Your task to perform on an android device: Search for dining room chairs on Crate & Barrel Image 0: 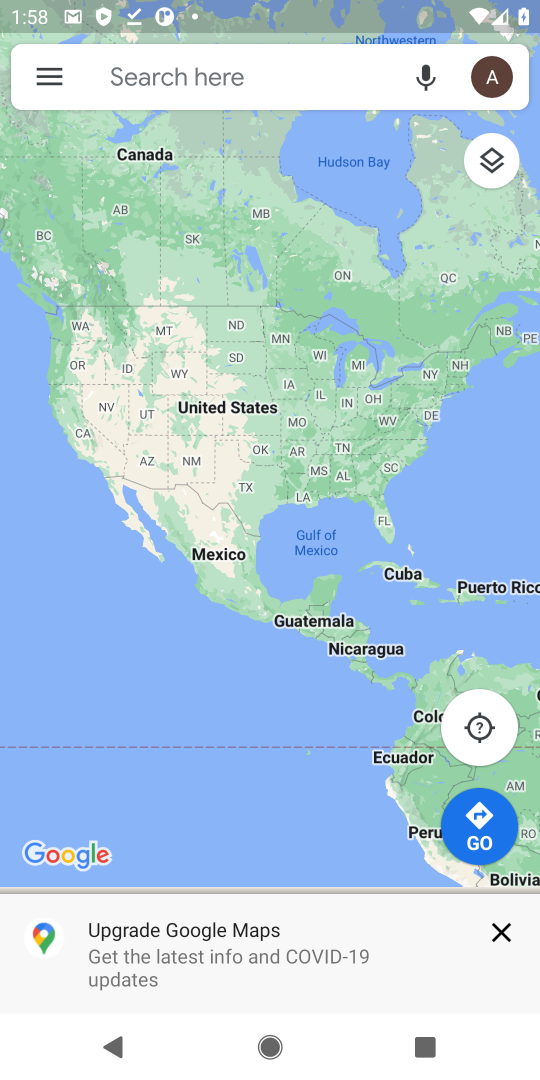
Step 0: press home button
Your task to perform on an android device: Search for dining room chairs on Crate & Barrel Image 1: 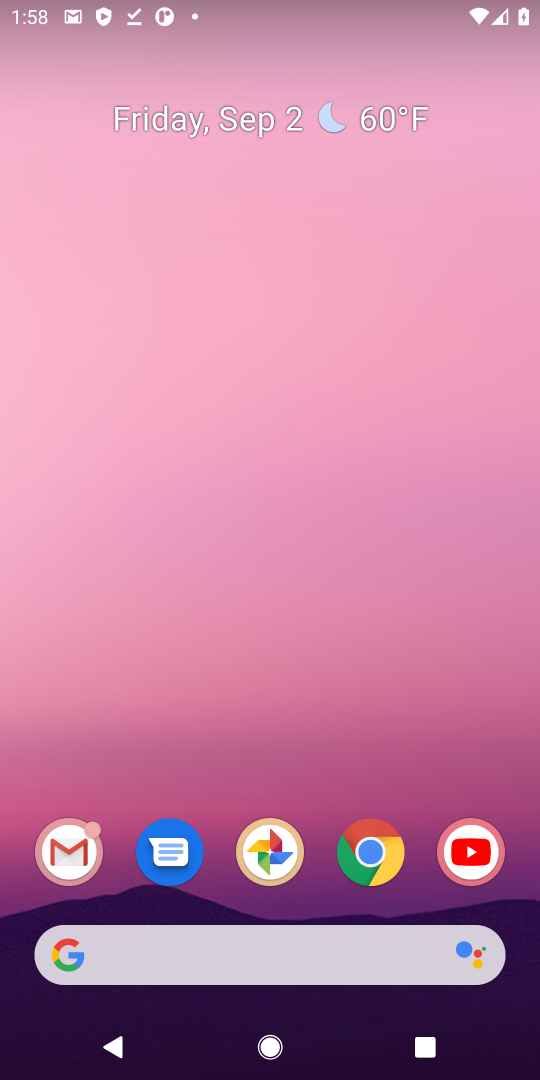
Step 1: drag from (458, 2) to (535, 9)
Your task to perform on an android device: Search for dining room chairs on Crate & Barrel Image 2: 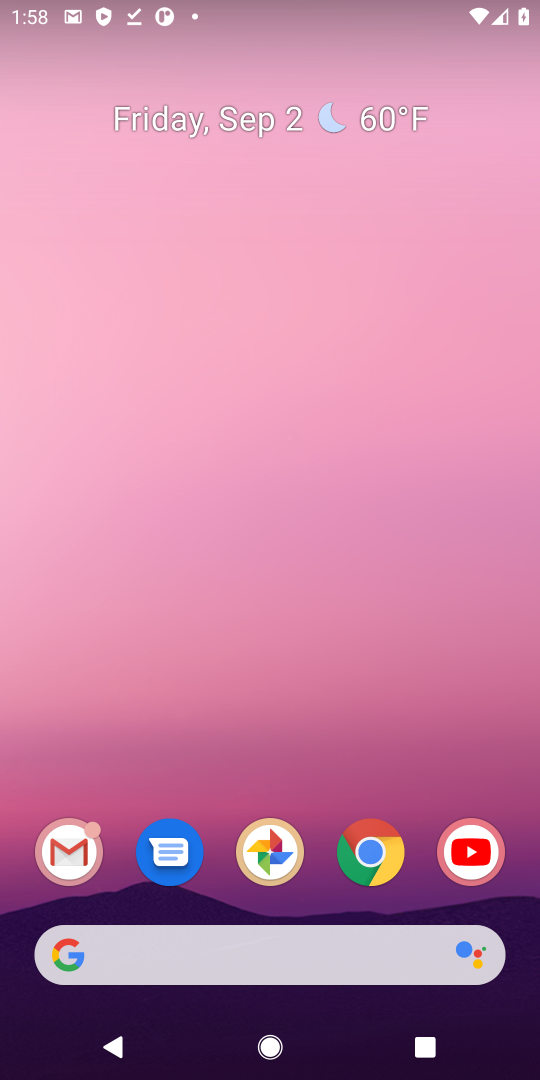
Step 2: drag from (361, 809) to (246, 209)
Your task to perform on an android device: Search for dining room chairs on Crate & Barrel Image 3: 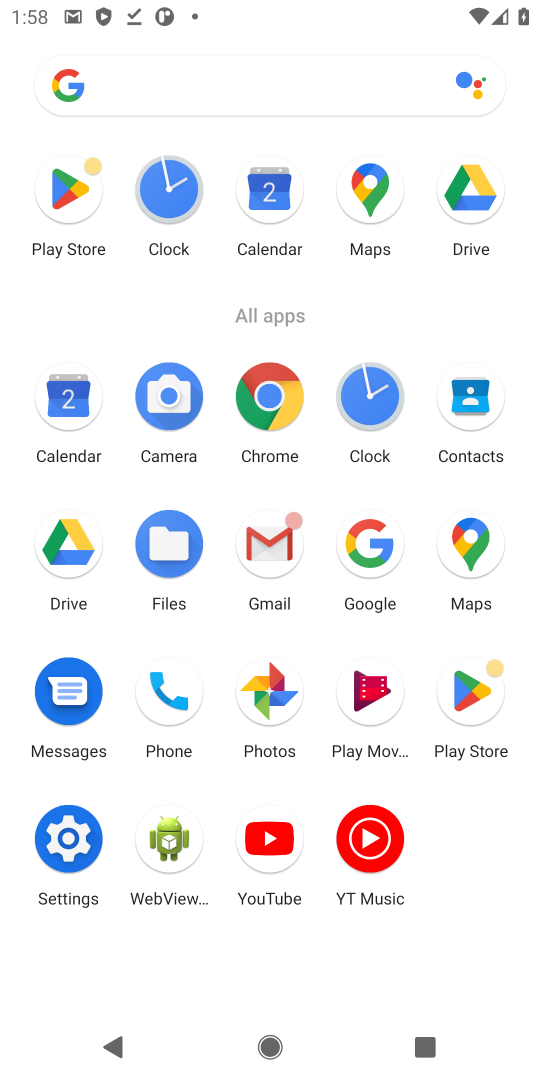
Step 3: click (267, 396)
Your task to perform on an android device: Search for dining room chairs on Crate & Barrel Image 4: 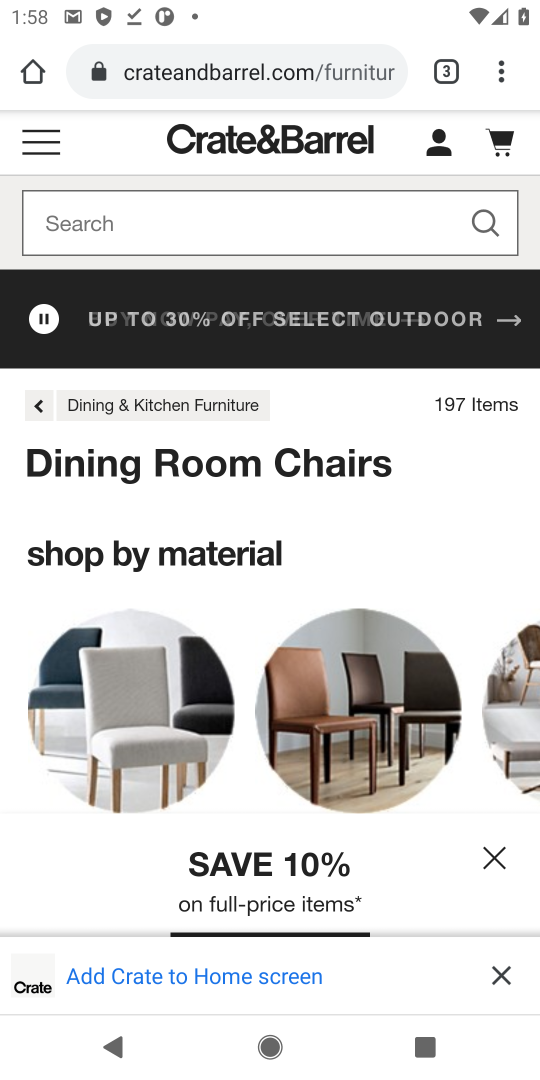
Step 4: click (297, 79)
Your task to perform on an android device: Search for dining room chairs on Crate & Barrel Image 5: 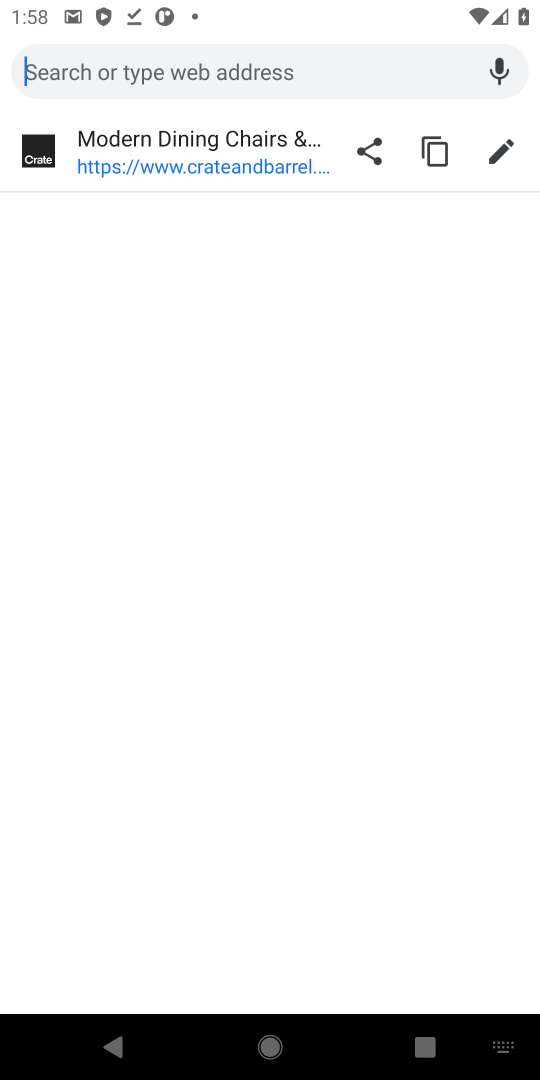
Step 5: type "dining room chairs on Crate & Barrel"
Your task to perform on an android device: Search for dining room chairs on Crate & Barrel Image 6: 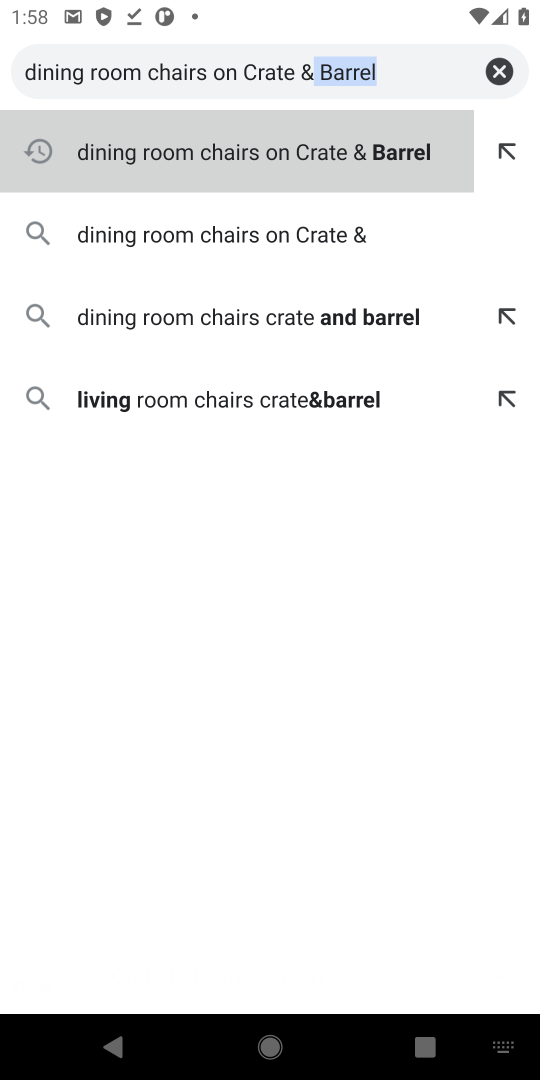
Step 6: press enter
Your task to perform on an android device: Search for dining room chairs on Crate & Barrel Image 7: 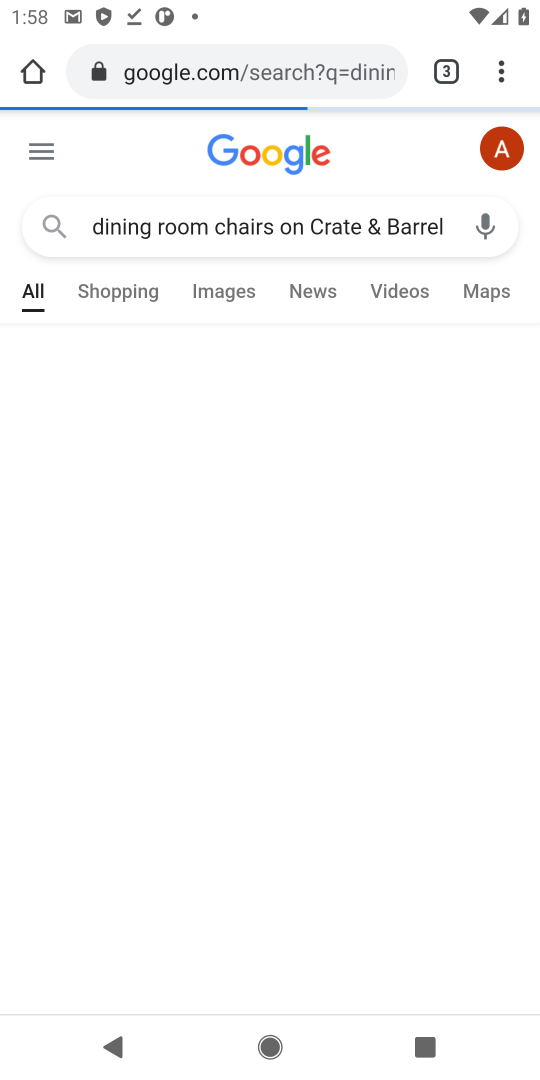
Step 7: press enter
Your task to perform on an android device: Search for dining room chairs on Crate & Barrel Image 8: 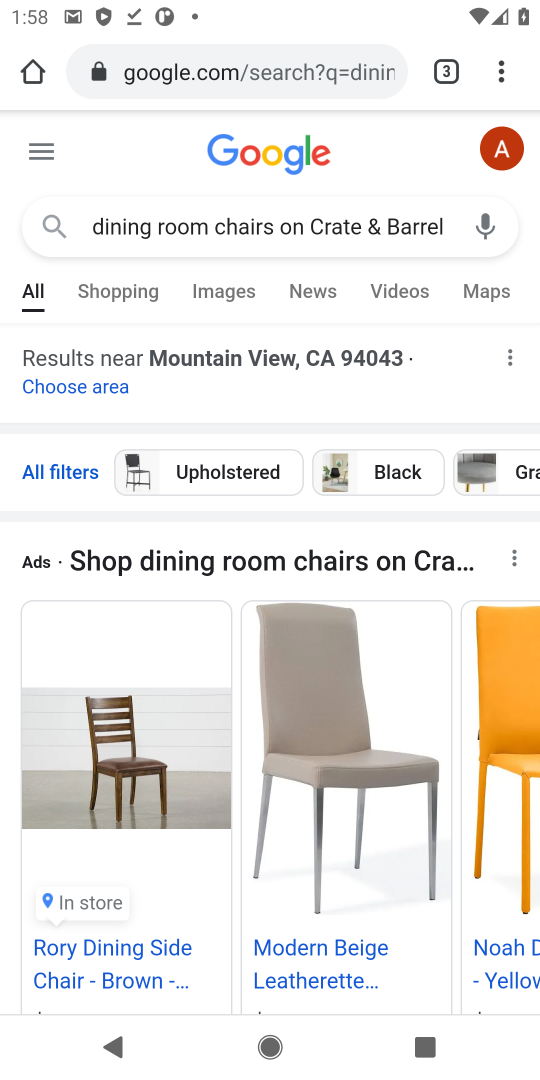
Step 8: click (288, 226)
Your task to perform on an android device: Search for dining room chairs on Crate & Barrel Image 9: 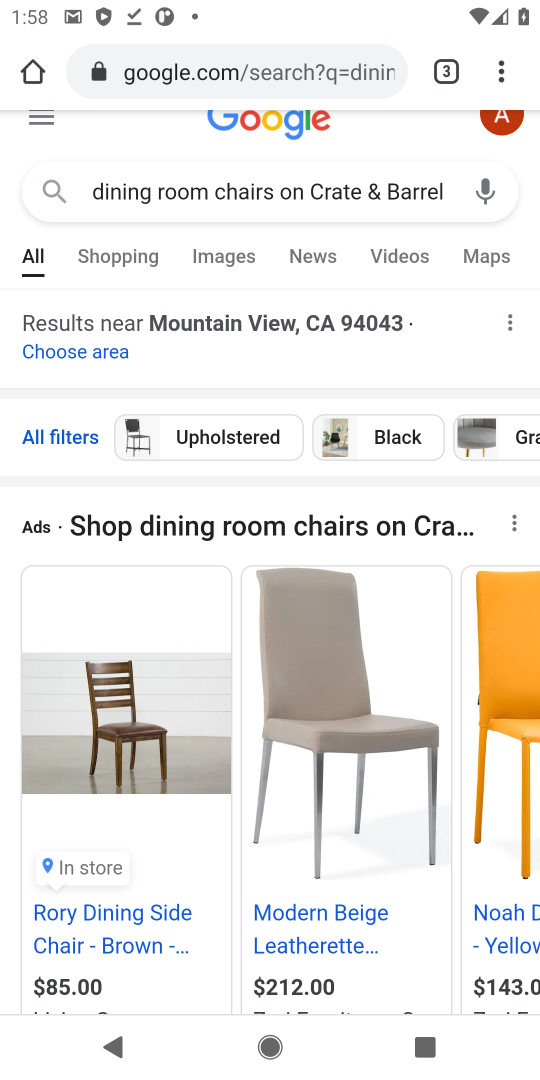
Step 9: drag from (291, 914) to (348, 231)
Your task to perform on an android device: Search for dining room chairs on Crate & Barrel Image 10: 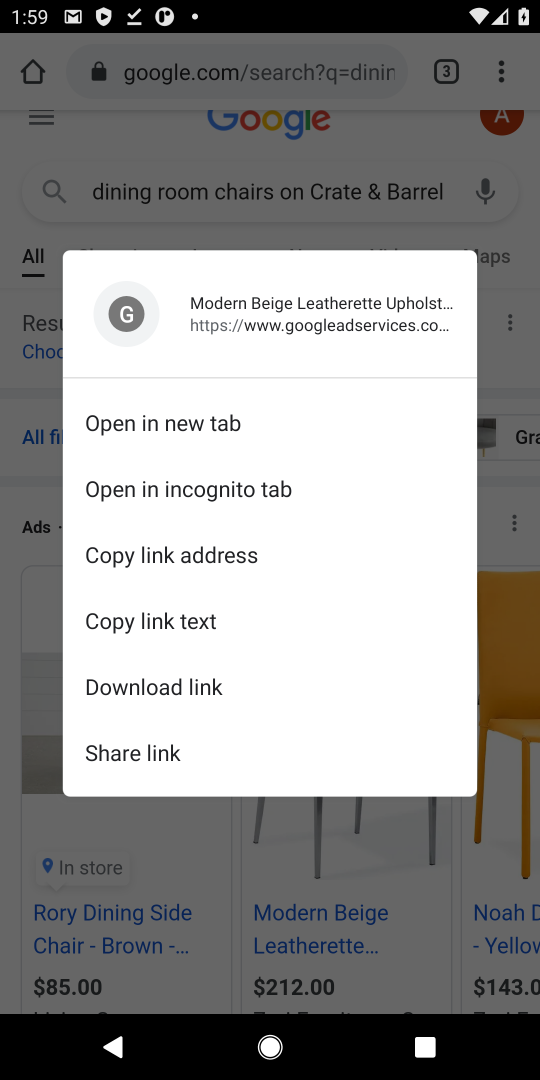
Step 10: click (299, 160)
Your task to perform on an android device: Search for dining room chairs on Crate & Barrel Image 11: 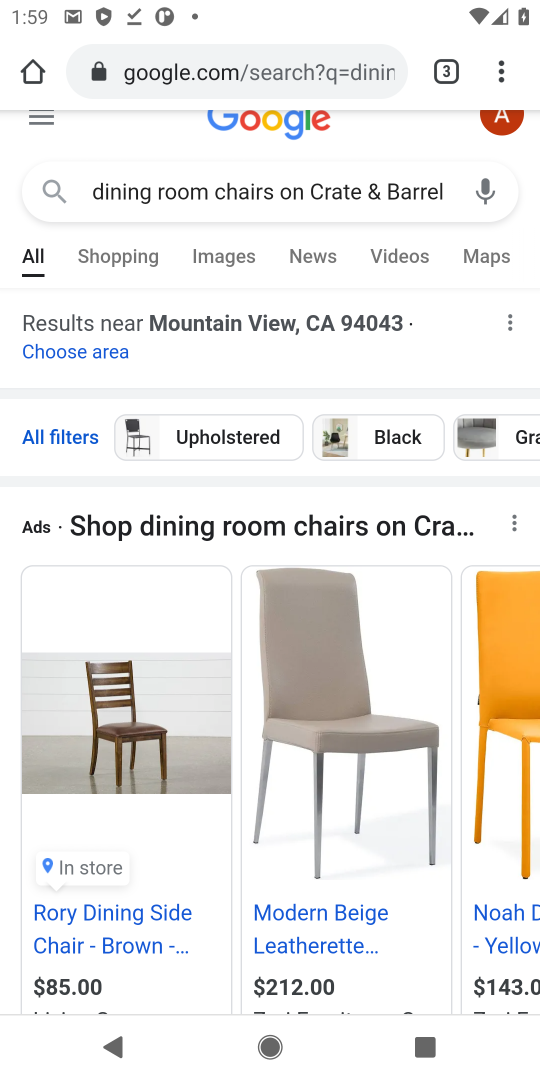
Step 11: drag from (330, 623) to (340, 70)
Your task to perform on an android device: Search for dining room chairs on Crate & Barrel Image 12: 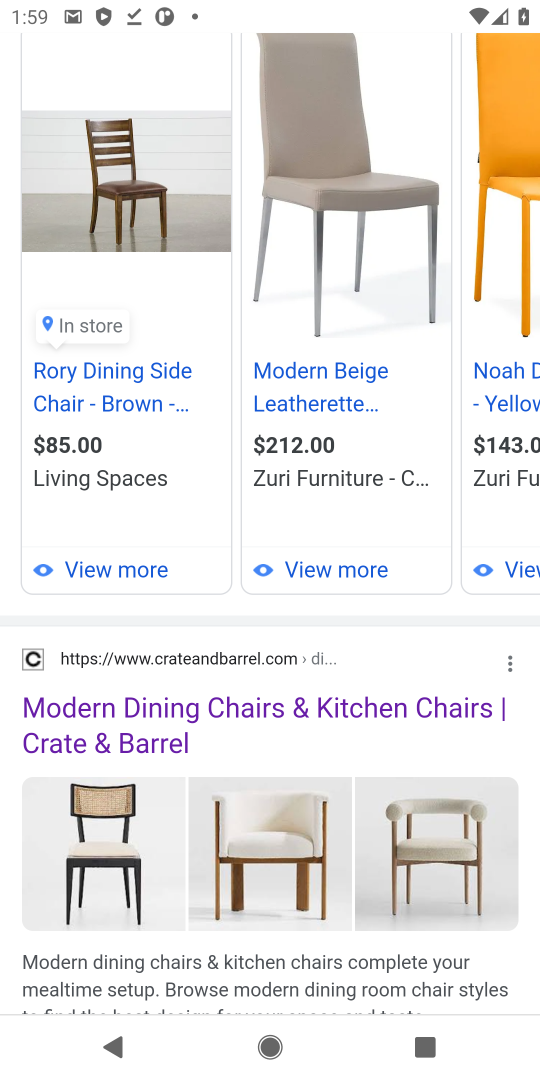
Step 12: click (176, 706)
Your task to perform on an android device: Search for dining room chairs on Crate & Barrel Image 13: 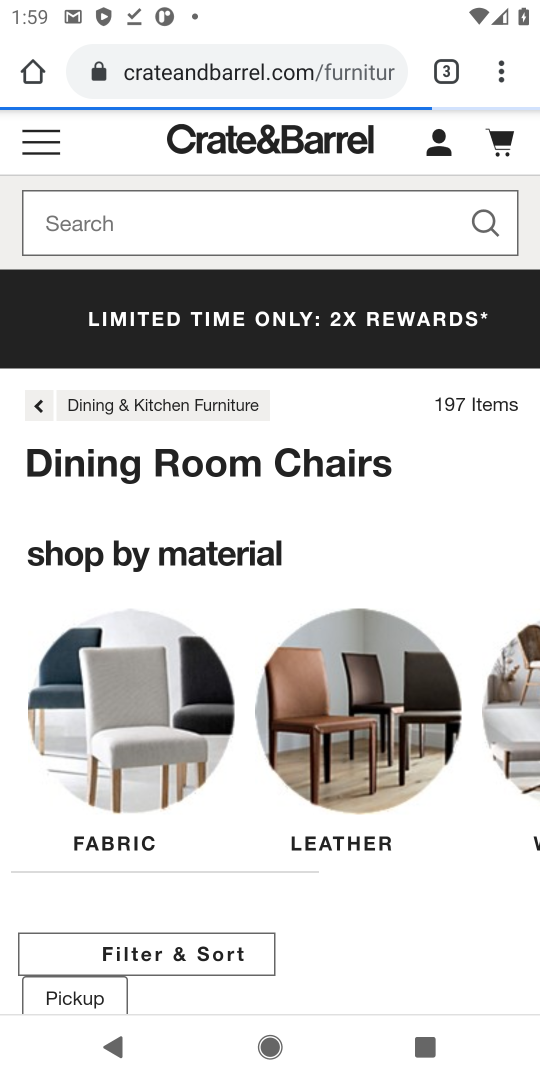
Step 13: task complete